Your task to perform on an android device: Open eBay Image 0: 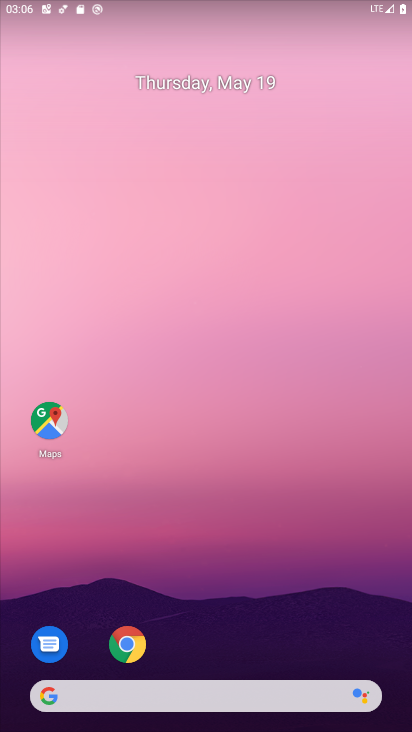
Step 0: click (132, 642)
Your task to perform on an android device: Open eBay Image 1: 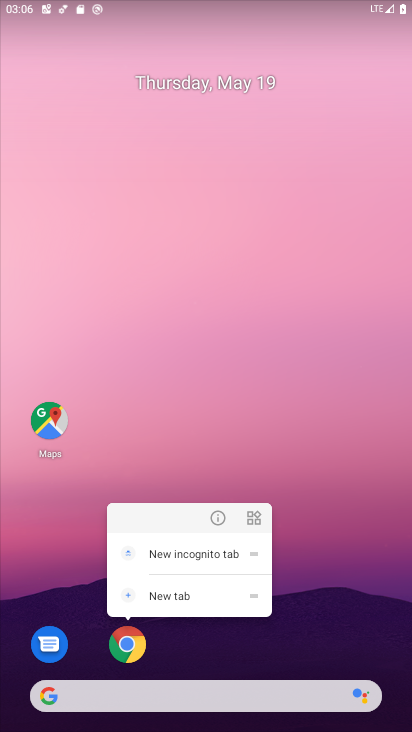
Step 1: click (141, 652)
Your task to perform on an android device: Open eBay Image 2: 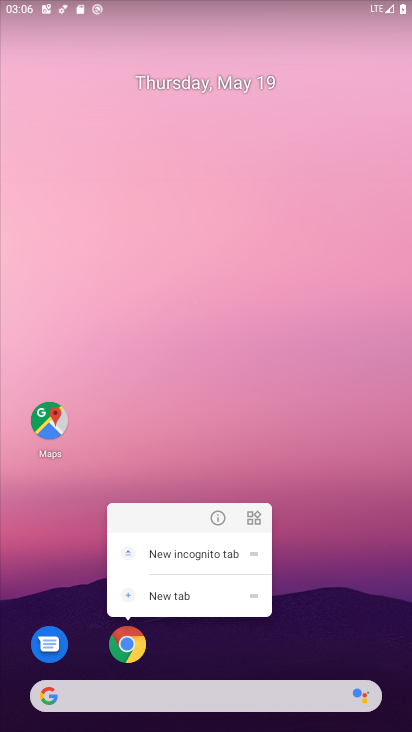
Step 2: click (132, 640)
Your task to perform on an android device: Open eBay Image 3: 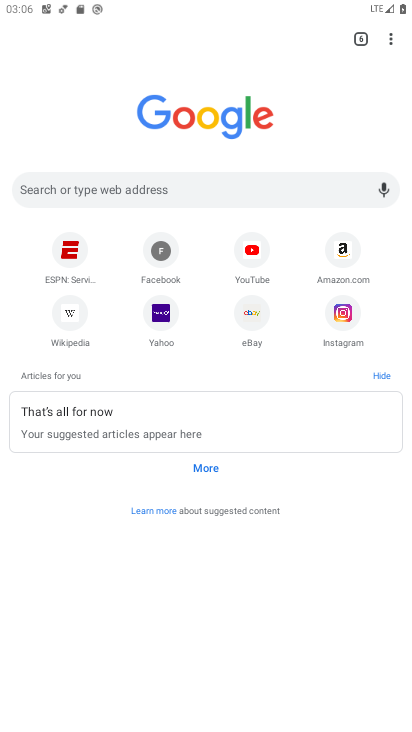
Step 3: click (144, 174)
Your task to perform on an android device: Open eBay Image 4: 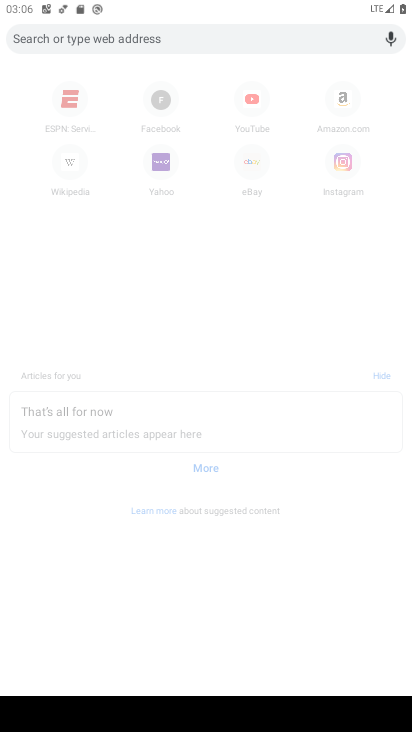
Step 4: type "eBay"
Your task to perform on an android device: Open eBay Image 5: 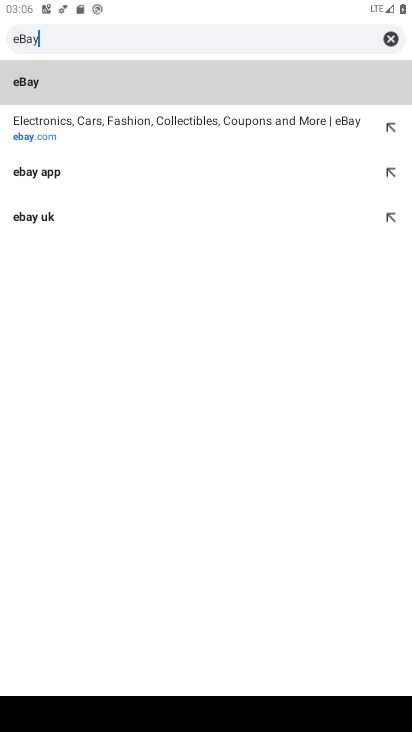
Step 5: click (220, 87)
Your task to perform on an android device: Open eBay Image 6: 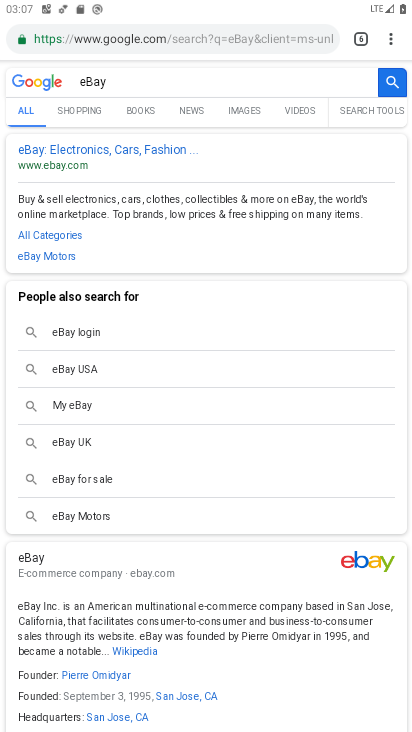
Step 6: task complete